Your task to perform on an android device: Go to ESPN.com Image 0: 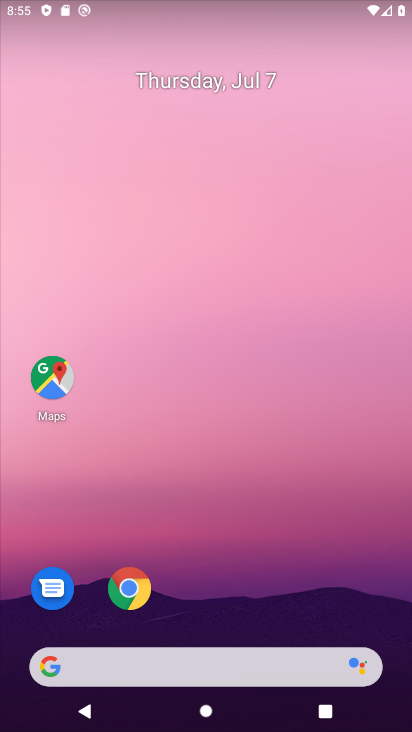
Step 0: click (141, 575)
Your task to perform on an android device: Go to ESPN.com Image 1: 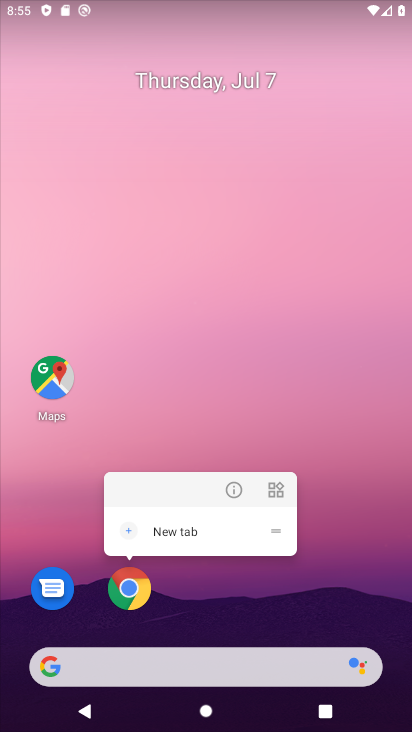
Step 1: click (139, 568)
Your task to perform on an android device: Go to ESPN.com Image 2: 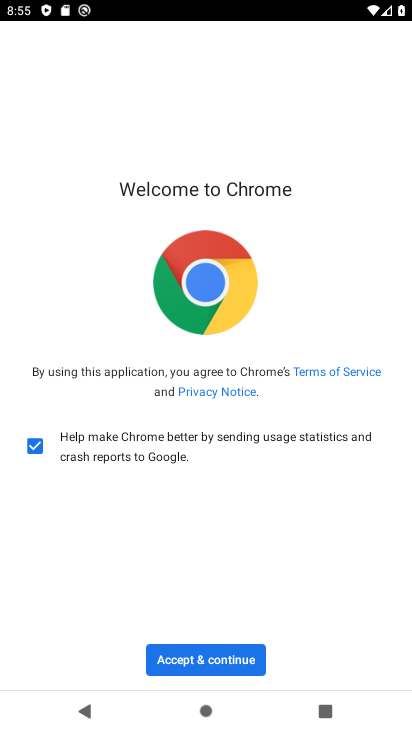
Step 2: click (209, 667)
Your task to perform on an android device: Go to ESPN.com Image 3: 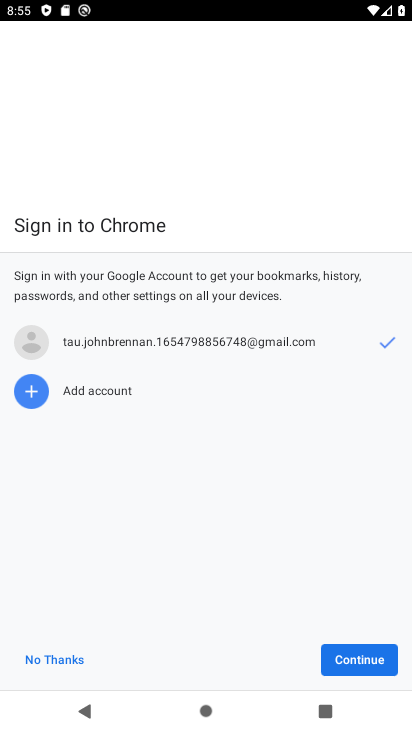
Step 3: click (342, 662)
Your task to perform on an android device: Go to ESPN.com Image 4: 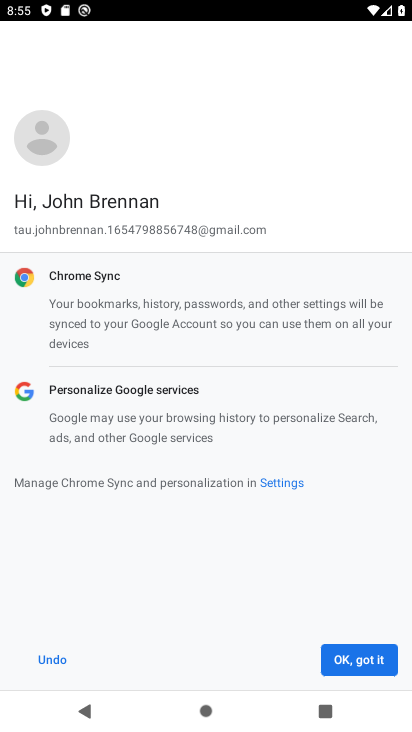
Step 4: click (344, 663)
Your task to perform on an android device: Go to ESPN.com Image 5: 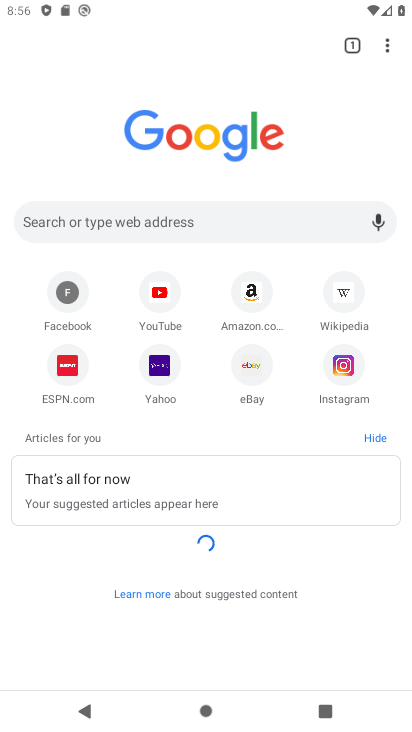
Step 5: click (63, 372)
Your task to perform on an android device: Go to ESPN.com Image 6: 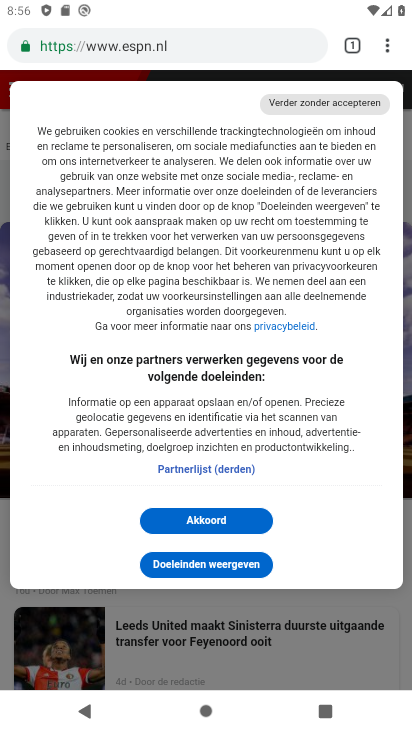
Step 6: click (250, 515)
Your task to perform on an android device: Go to ESPN.com Image 7: 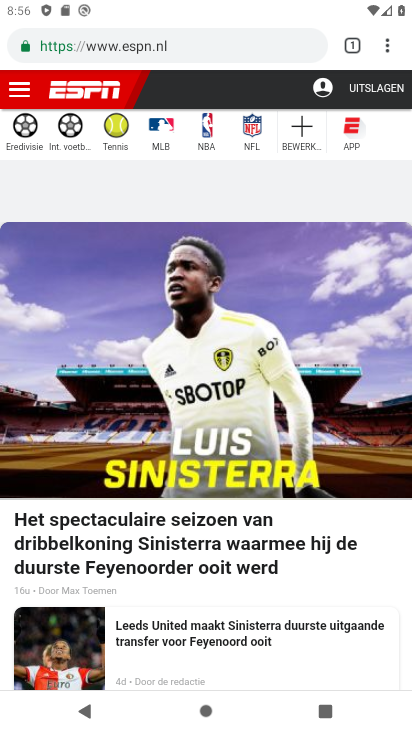
Step 7: task complete